Your task to perform on an android device: Open Chrome and go to the settings page Image 0: 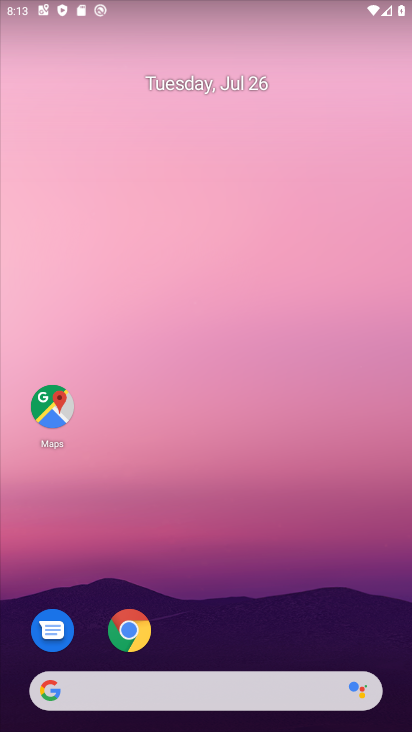
Step 0: click (131, 644)
Your task to perform on an android device: Open Chrome and go to the settings page Image 1: 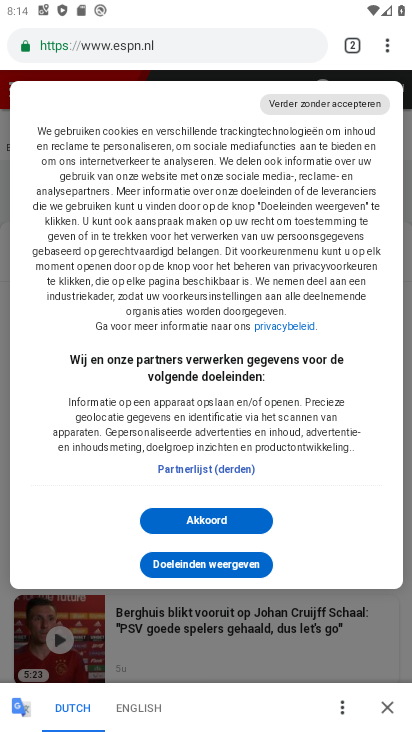
Step 1: click (398, 54)
Your task to perform on an android device: Open Chrome and go to the settings page Image 2: 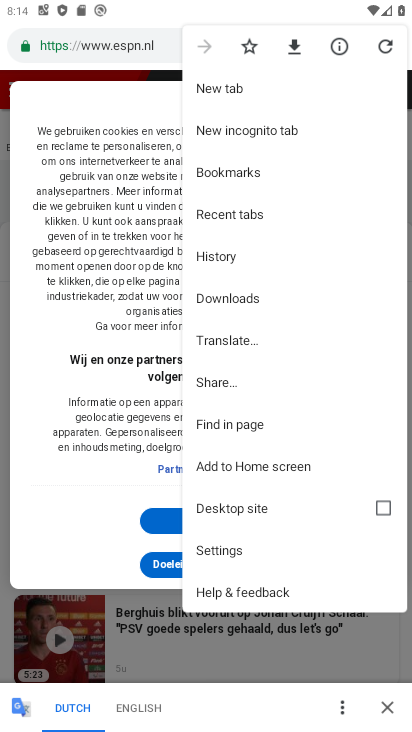
Step 2: click (230, 554)
Your task to perform on an android device: Open Chrome and go to the settings page Image 3: 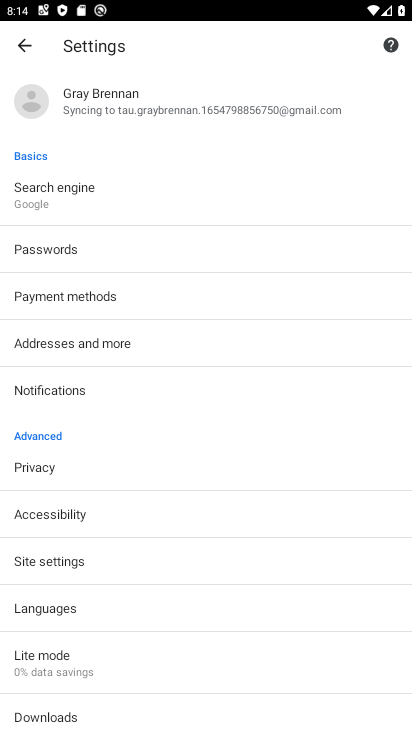
Step 3: task complete